Your task to perform on an android device: Open Maps and search for coffee Image 0: 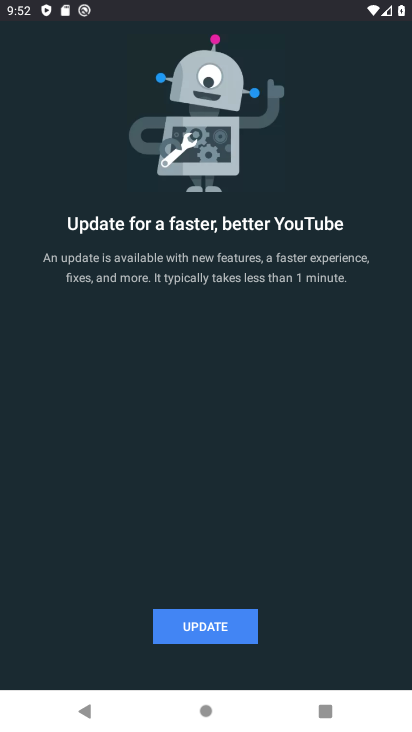
Step 0: press home button
Your task to perform on an android device: Open Maps and search for coffee Image 1: 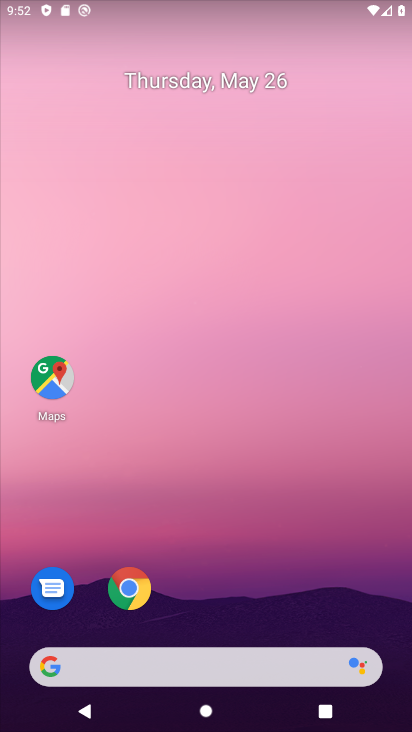
Step 1: drag from (220, 719) to (215, 13)
Your task to perform on an android device: Open Maps and search for coffee Image 2: 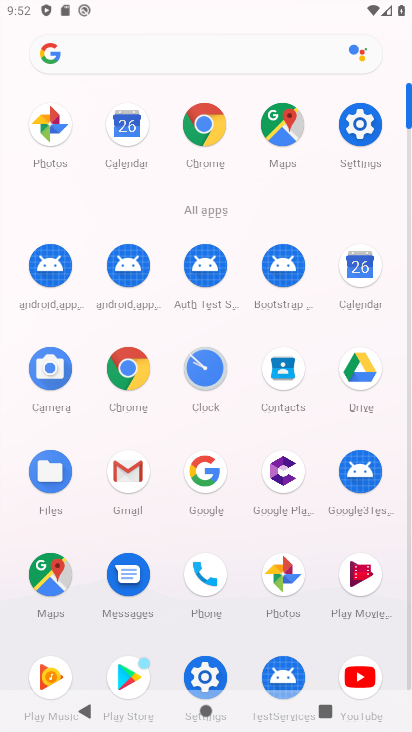
Step 2: click (54, 577)
Your task to perform on an android device: Open Maps and search for coffee Image 3: 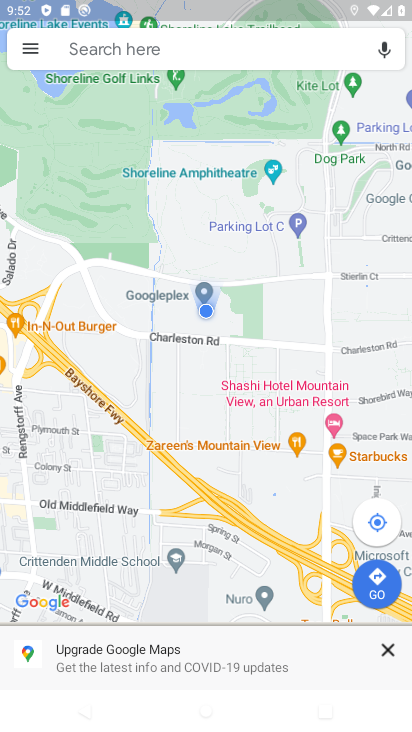
Step 3: click (182, 50)
Your task to perform on an android device: Open Maps and search for coffee Image 4: 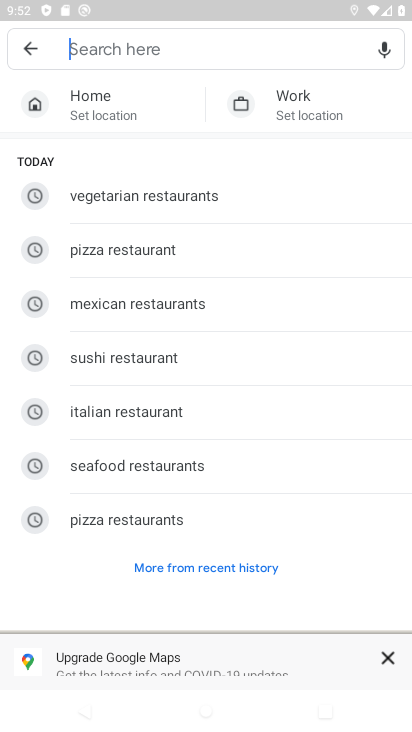
Step 4: click (182, 50)
Your task to perform on an android device: Open Maps and search for coffee Image 5: 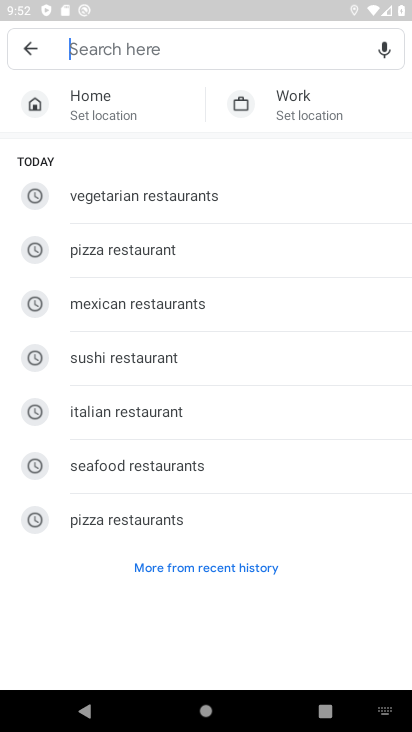
Step 5: type "coffee"
Your task to perform on an android device: Open Maps and search for coffee Image 6: 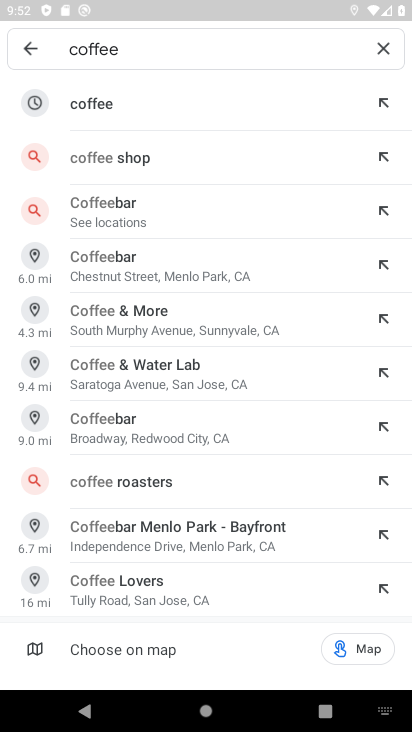
Step 6: click (85, 102)
Your task to perform on an android device: Open Maps and search for coffee Image 7: 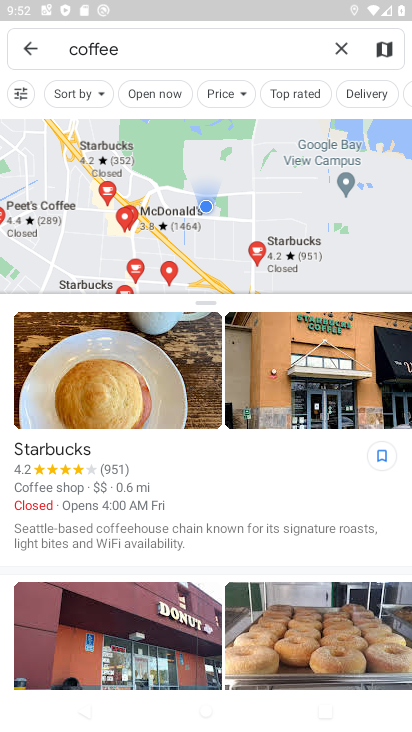
Step 7: task complete